Your task to perform on an android device: View the shopping cart on newegg. Search for energizer triple a on newegg, select the first entry, add it to the cart, then select checkout. Image 0: 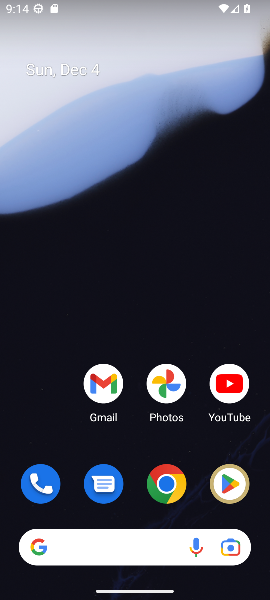
Step 0: click (168, 489)
Your task to perform on an android device: View the shopping cart on newegg. Search for energizer triple a on newegg, select the first entry, add it to the cart, then select checkout. Image 1: 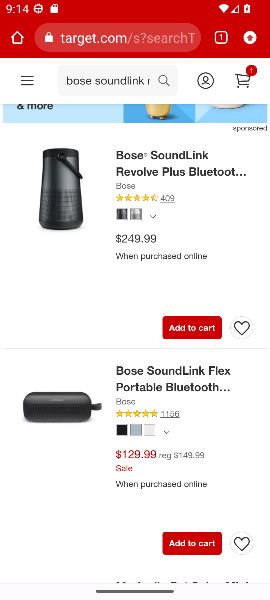
Step 1: click (100, 40)
Your task to perform on an android device: View the shopping cart on newegg. Search for energizer triple a on newegg, select the first entry, add it to the cart, then select checkout. Image 2: 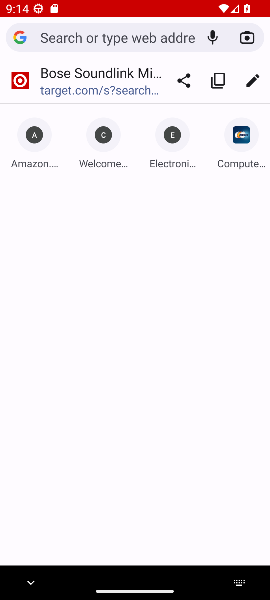
Step 2: click (240, 143)
Your task to perform on an android device: View the shopping cart on newegg. Search for energizer triple a on newegg, select the first entry, add it to the cart, then select checkout. Image 3: 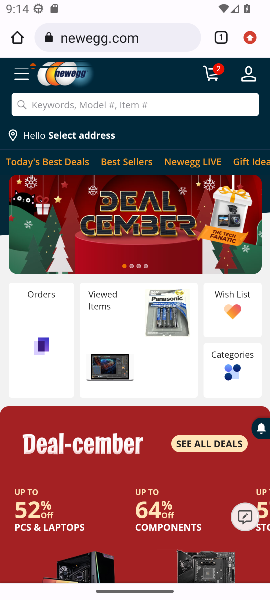
Step 3: click (216, 76)
Your task to perform on an android device: View the shopping cart on newegg. Search for energizer triple a on newegg, select the first entry, add it to the cart, then select checkout. Image 4: 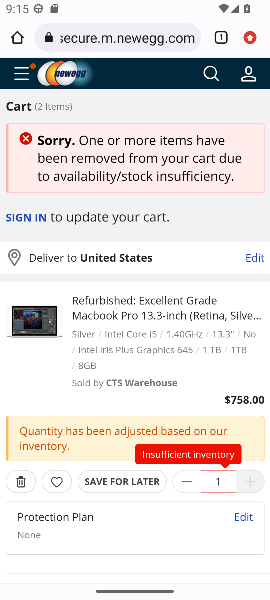
Step 4: click (208, 76)
Your task to perform on an android device: View the shopping cart on newegg. Search for energizer triple a on newegg, select the first entry, add it to the cart, then select checkout. Image 5: 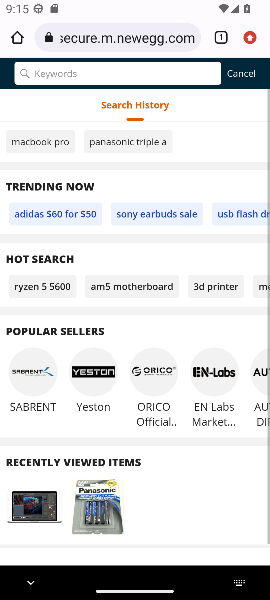
Step 5: type "energizer triple a"
Your task to perform on an android device: View the shopping cart on newegg. Search for energizer triple a on newegg, select the first entry, add it to the cart, then select checkout. Image 6: 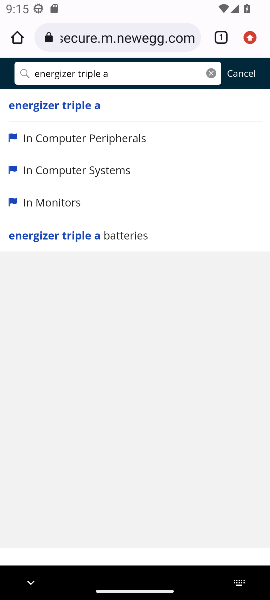
Step 6: click (66, 107)
Your task to perform on an android device: View the shopping cart on newegg. Search for energizer triple a on newegg, select the first entry, add it to the cart, then select checkout. Image 7: 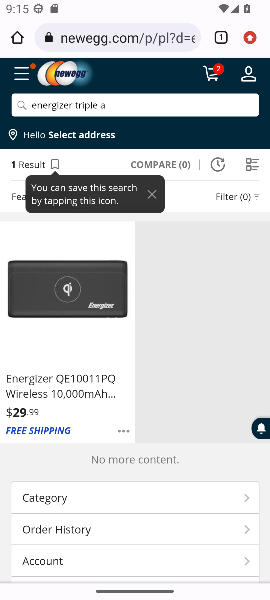
Step 7: task complete